Your task to perform on an android device: Open Chrome and go to the settings page Image 0: 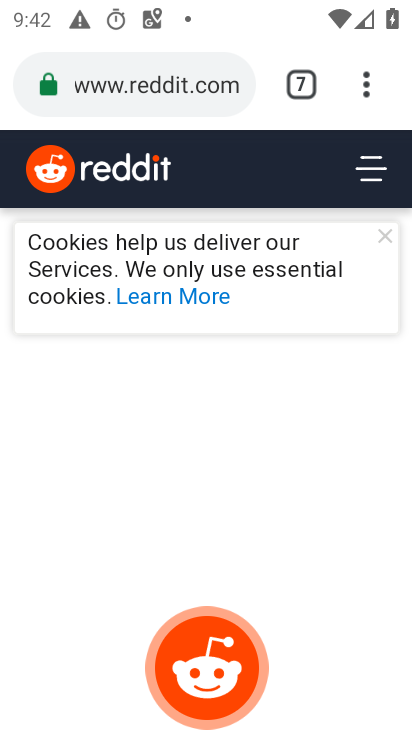
Step 0: press home button
Your task to perform on an android device: Open Chrome and go to the settings page Image 1: 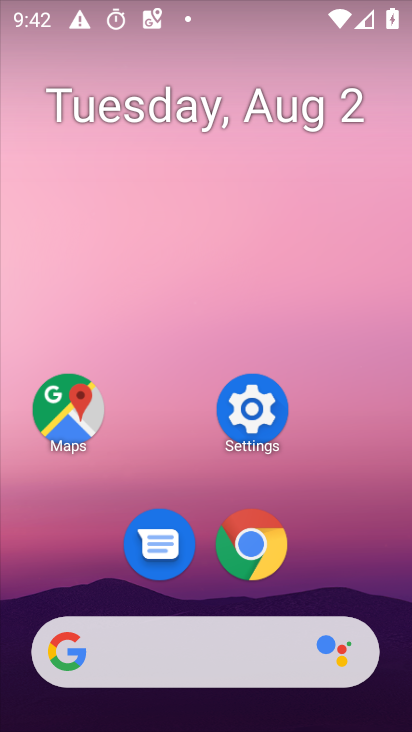
Step 1: click (254, 540)
Your task to perform on an android device: Open Chrome and go to the settings page Image 2: 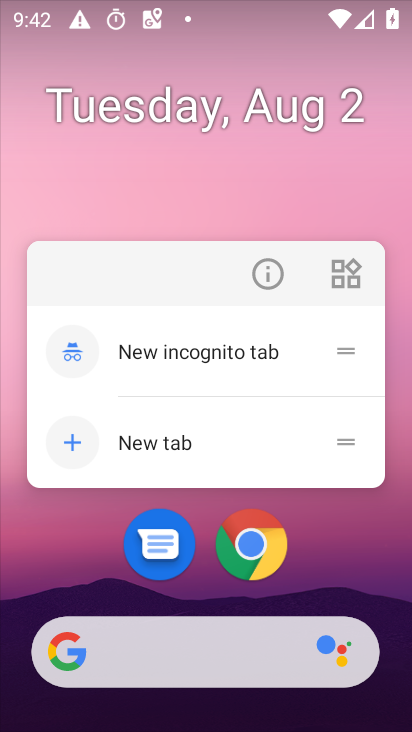
Step 2: click (249, 544)
Your task to perform on an android device: Open Chrome and go to the settings page Image 3: 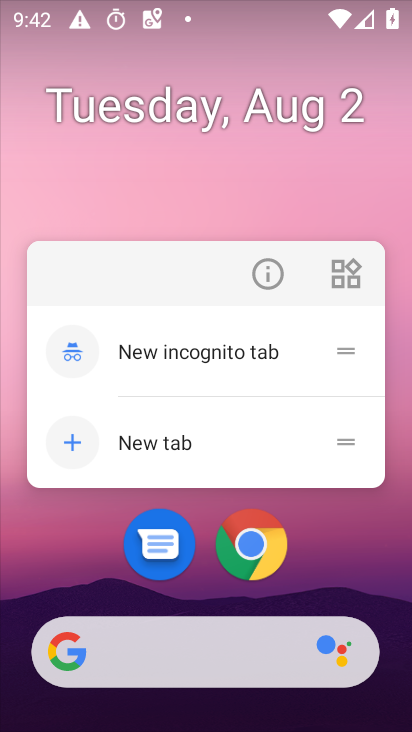
Step 3: click (249, 545)
Your task to perform on an android device: Open Chrome and go to the settings page Image 4: 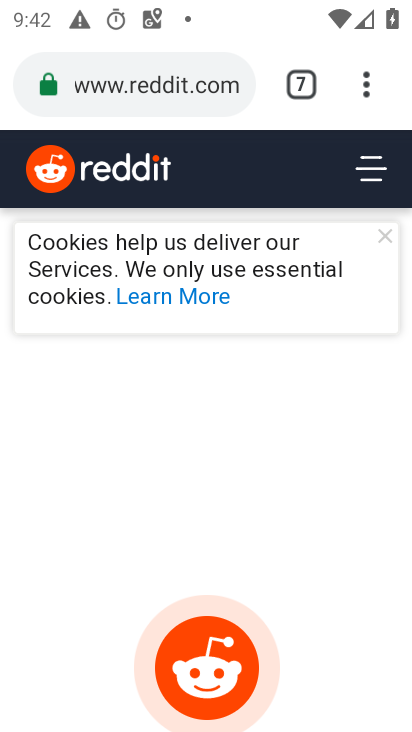
Step 4: task complete